Your task to perform on an android device: turn off location Image 0: 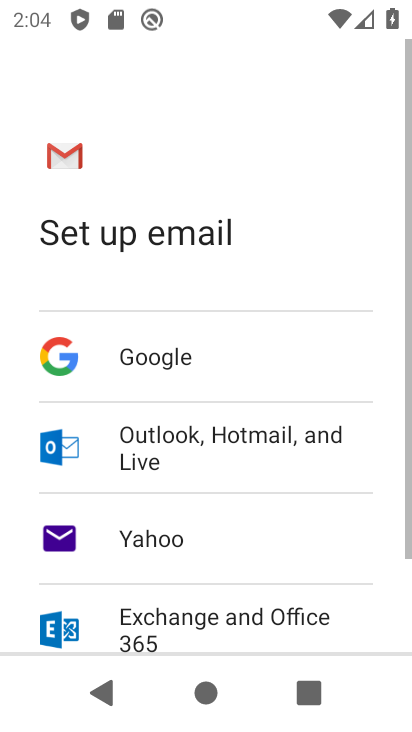
Step 0: press home button
Your task to perform on an android device: turn off location Image 1: 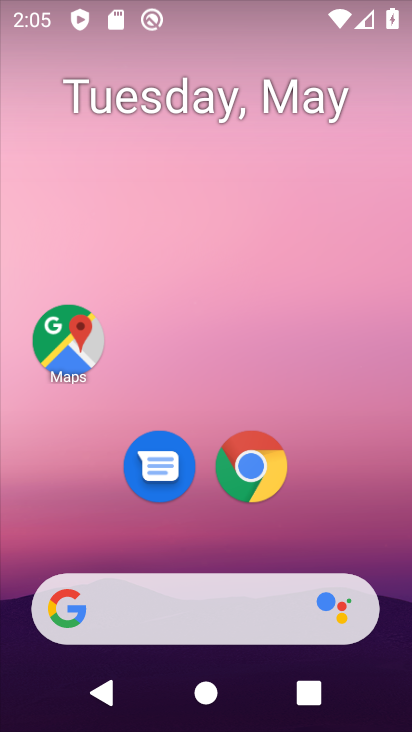
Step 1: drag from (339, 509) to (331, 26)
Your task to perform on an android device: turn off location Image 2: 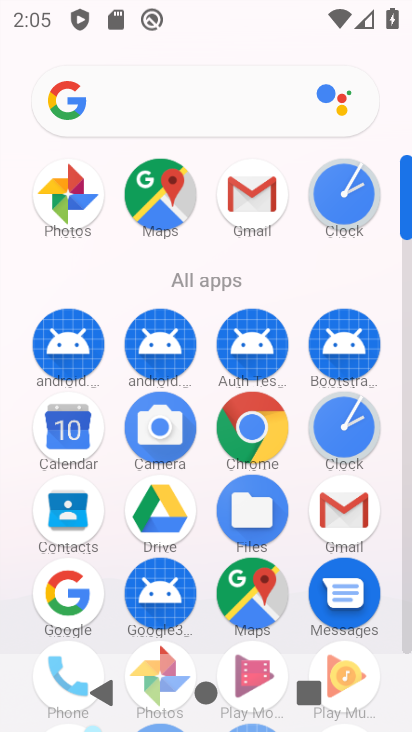
Step 2: drag from (292, 631) to (310, 188)
Your task to perform on an android device: turn off location Image 3: 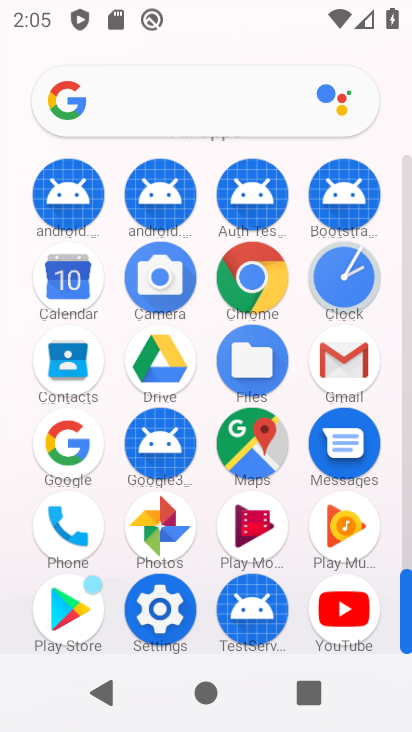
Step 3: click (165, 630)
Your task to perform on an android device: turn off location Image 4: 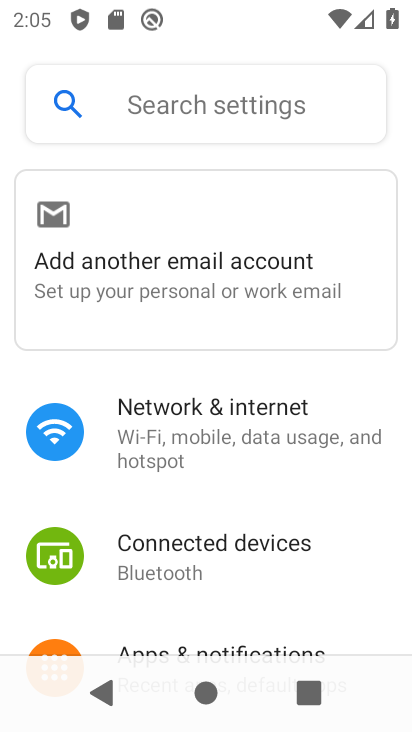
Step 4: drag from (281, 600) to (338, 349)
Your task to perform on an android device: turn off location Image 5: 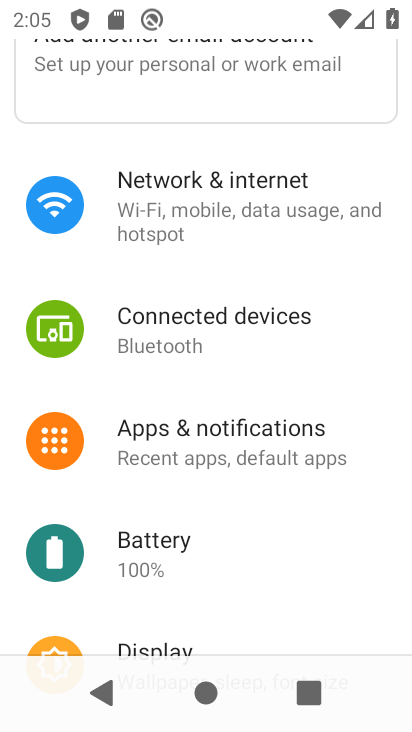
Step 5: drag from (137, 555) to (173, 277)
Your task to perform on an android device: turn off location Image 6: 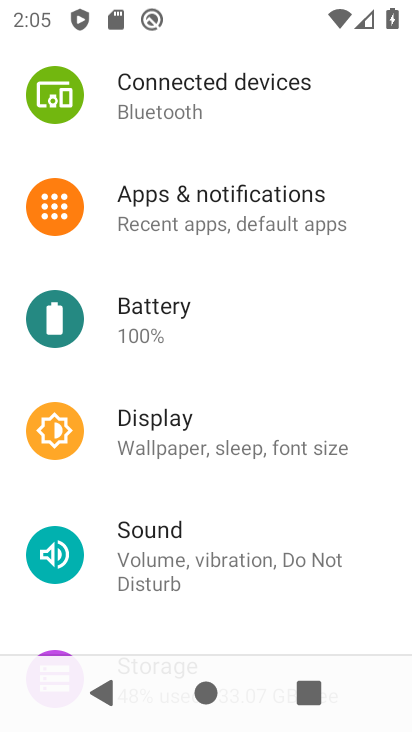
Step 6: drag from (182, 540) to (196, 321)
Your task to perform on an android device: turn off location Image 7: 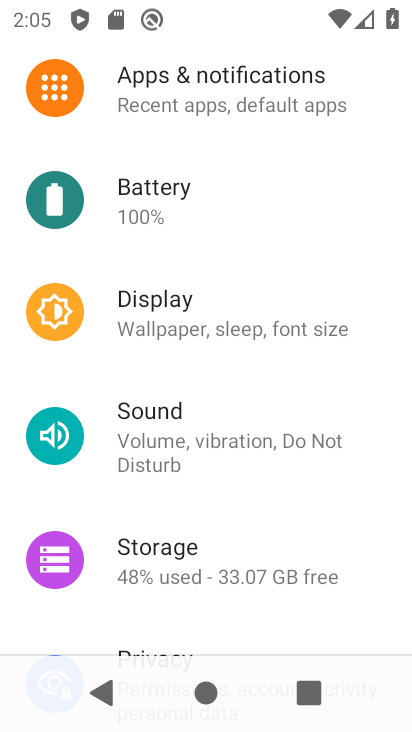
Step 7: drag from (183, 600) to (191, 387)
Your task to perform on an android device: turn off location Image 8: 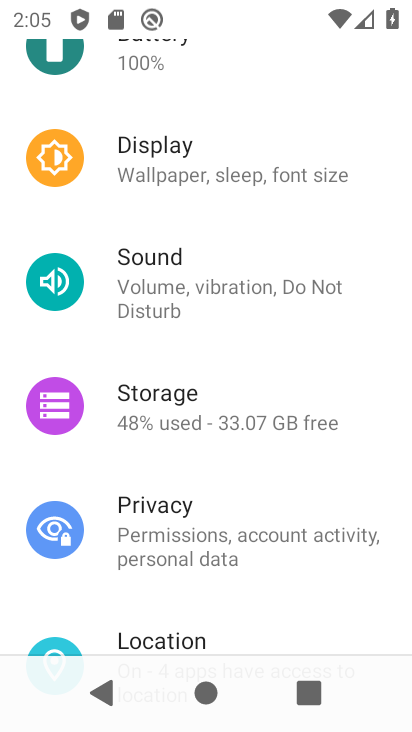
Step 8: drag from (193, 594) to (227, 227)
Your task to perform on an android device: turn off location Image 9: 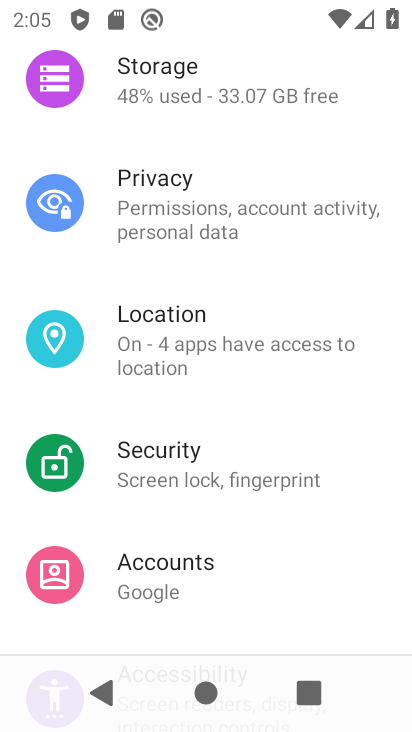
Step 9: click (231, 342)
Your task to perform on an android device: turn off location Image 10: 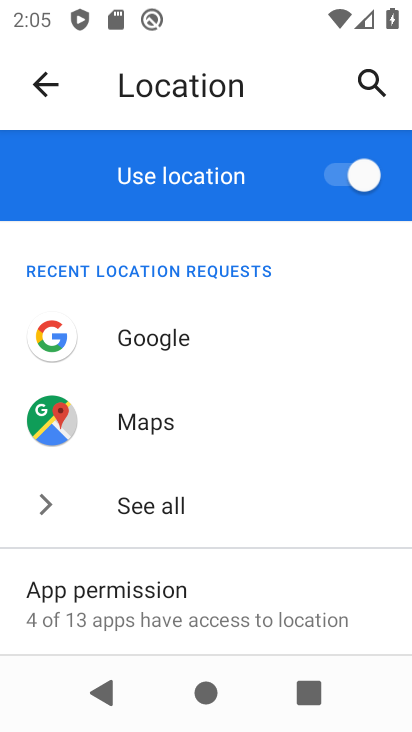
Step 10: click (327, 179)
Your task to perform on an android device: turn off location Image 11: 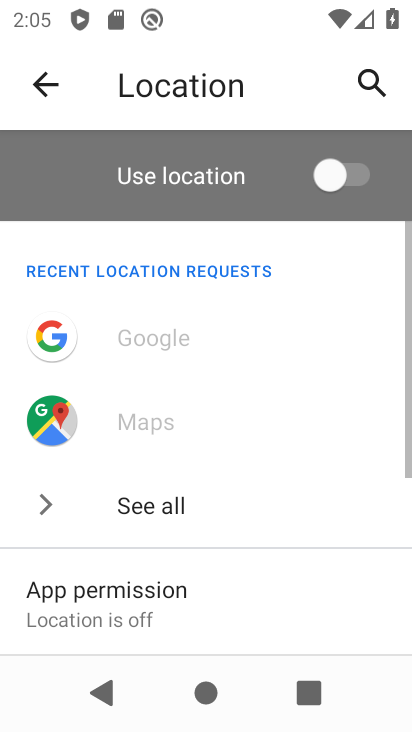
Step 11: task complete